Your task to perform on an android device: open a bookmark in the chrome app Image 0: 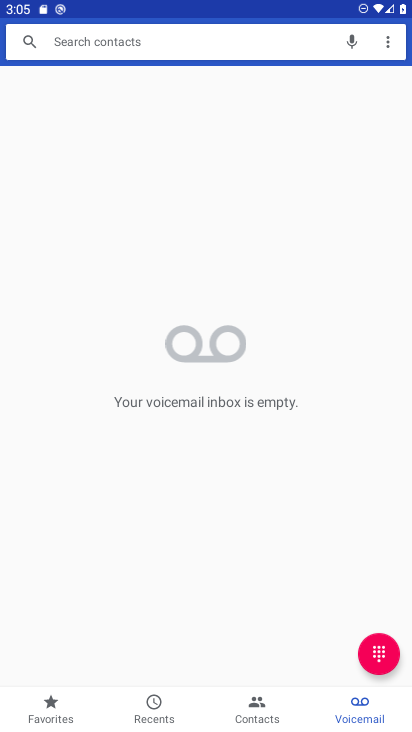
Step 0: press home button
Your task to perform on an android device: open a bookmark in the chrome app Image 1: 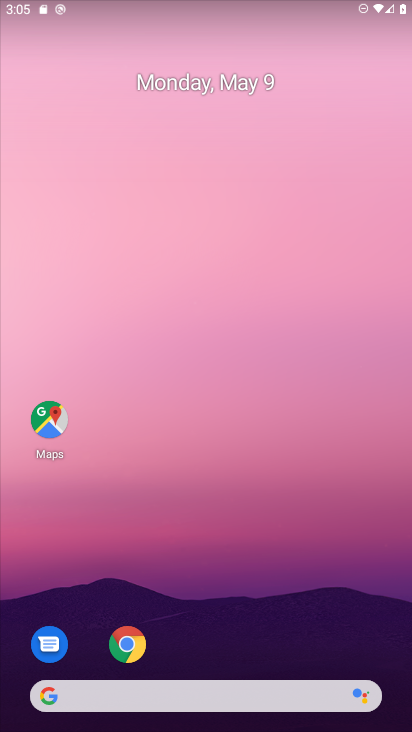
Step 1: click (117, 651)
Your task to perform on an android device: open a bookmark in the chrome app Image 2: 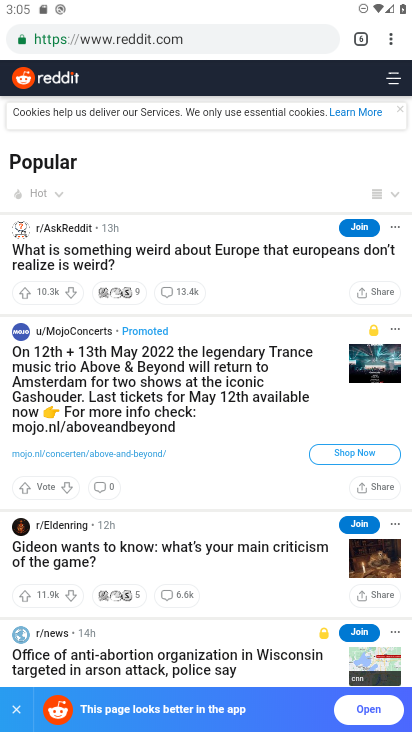
Step 2: click (391, 43)
Your task to perform on an android device: open a bookmark in the chrome app Image 3: 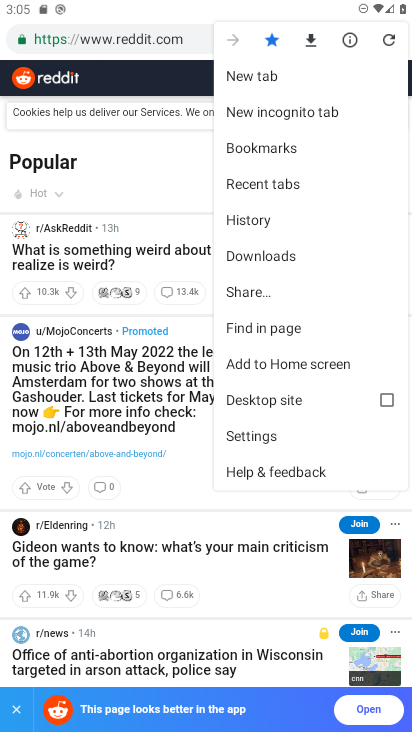
Step 3: click (275, 146)
Your task to perform on an android device: open a bookmark in the chrome app Image 4: 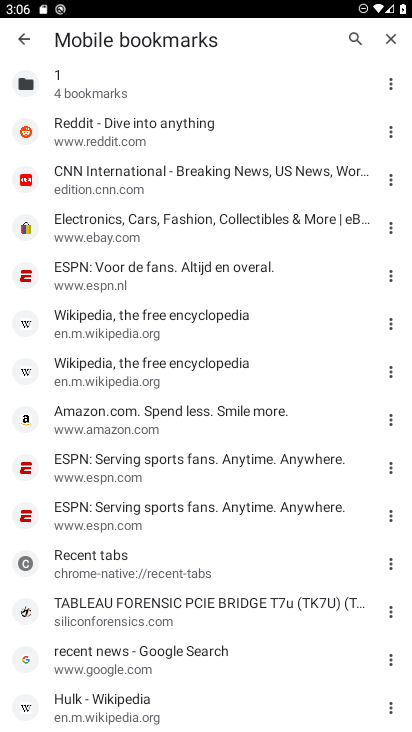
Step 4: click (116, 137)
Your task to perform on an android device: open a bookmark in the chrome app Image 5: 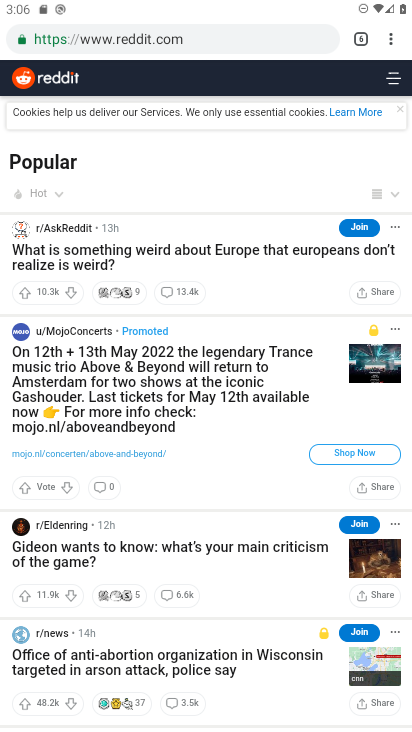
Step 5: task complete